Your task to perform on an android device: Search for a 36" x 48" whiteboard on Home Depot Image 0: 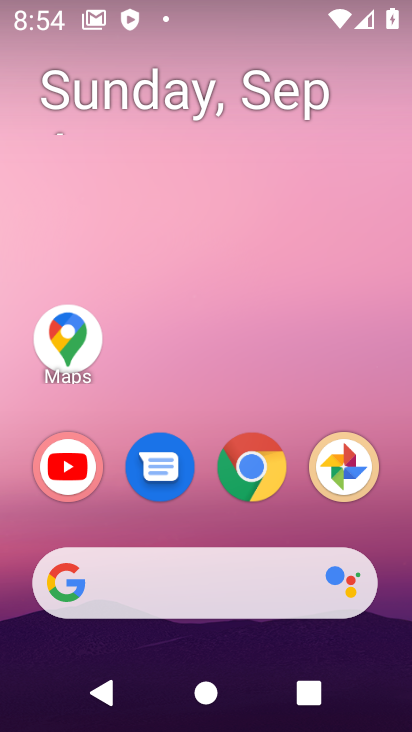
Step 0: click (411, 631)
Your task to perform on an android device: Search for a 36" x 48" whiteboard on Home Depot Image 1: 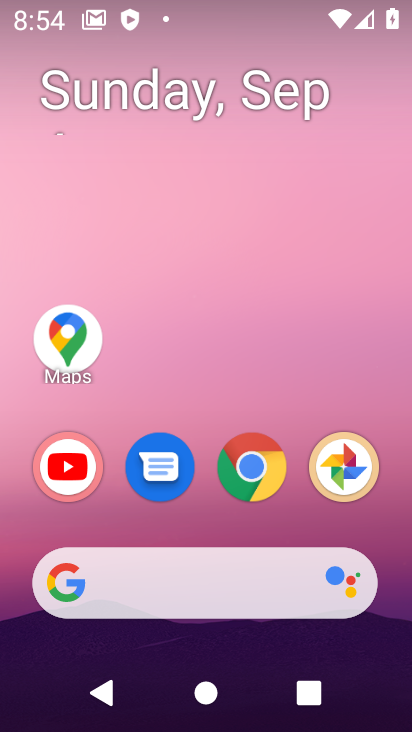
Step 1: click (248, 465)
Your task to perform on an android device: Search for a 36" x 48" whiteboard on Home Depot Image 2: 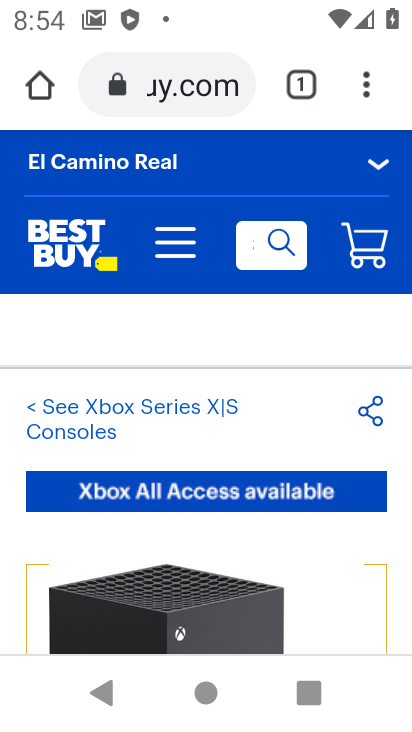
Step 2: click (177, 76)
Your task to perform on an android device: Search for a 36" x 48" whiteboard on Home Depot Image 3: 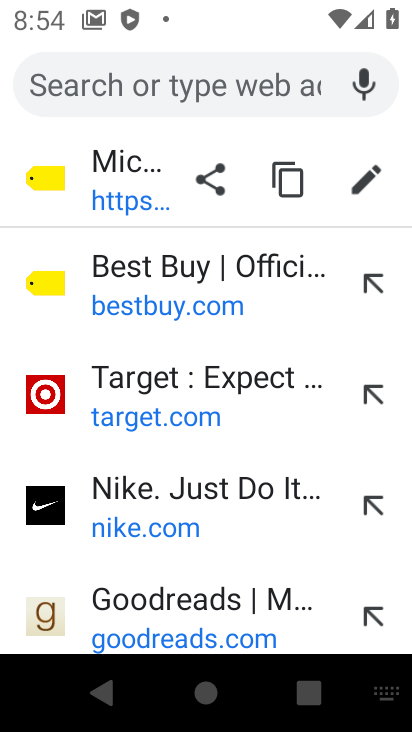
Step 3: type "home depot"
Your task to perform on an android device: Search for a 36" x 48" whiteboard on Home Depot Image 4: 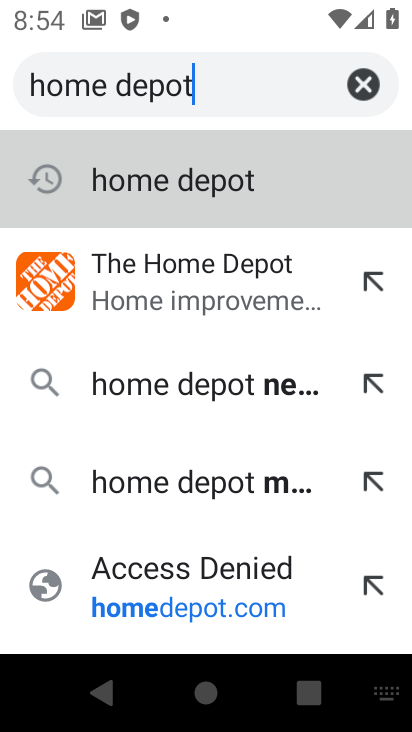
Step 4: click (108, 265)
Your task to perform on an android device: Search for a 36" x 48" whiteboard on Home Depot Image 5: 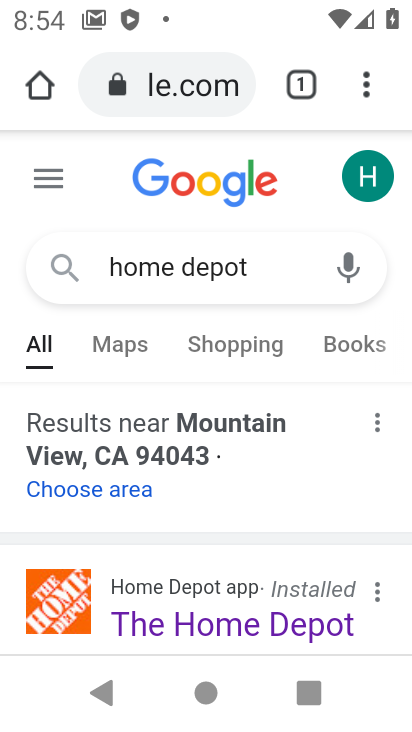
Step 5: click (248, 627)
Your task to perform on an android device: Search for a 36" x 48" whiteboard on Home Depot Image 6: 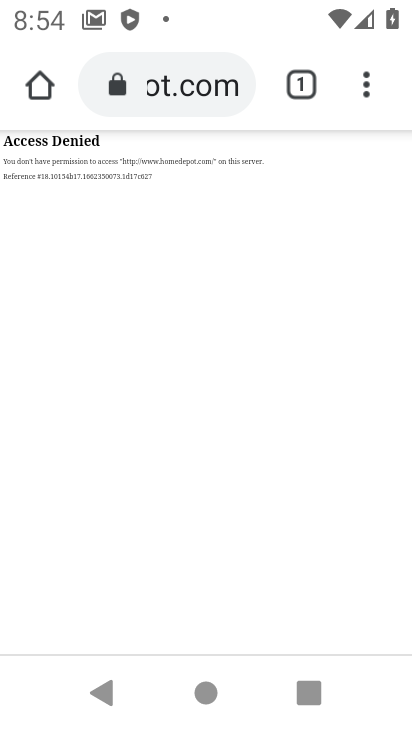
Step 6: task complete